Your task to perform on an android device: change keyboard looks Image 0: 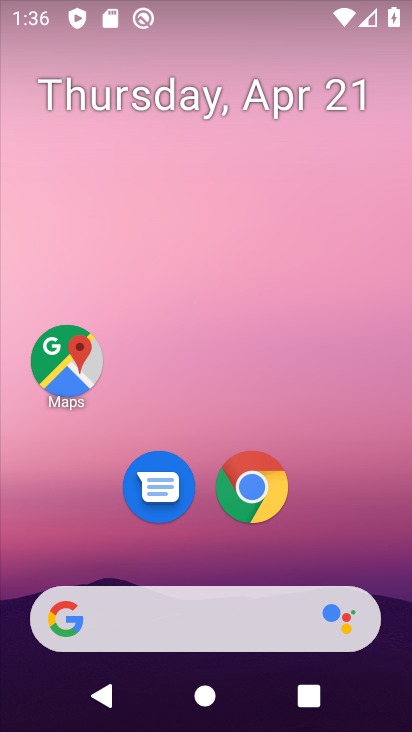
Step 0: drag from (213, 549) to (265, 359)
Your task to perform on an android device: change keyboard looks Image 1: 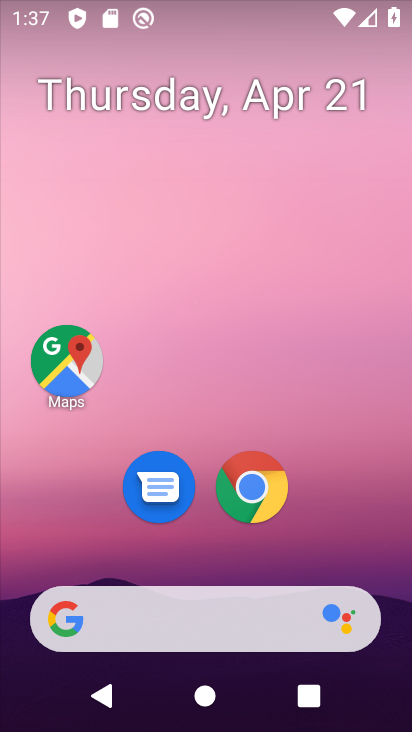
Step 1: drag from (215, 504) to (277, 151)
Your task to perform on an android device: change keyboard looks Image 2: 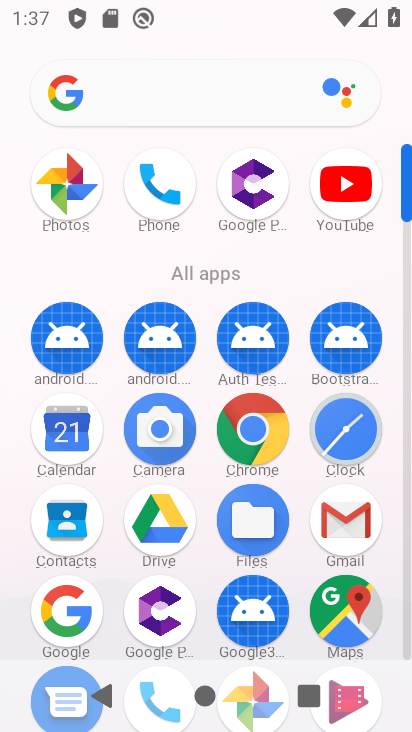
Step 2: drag from (241, 359) to (284, 54)
Your task to perform on an android device: change keyboard looks Image 3: 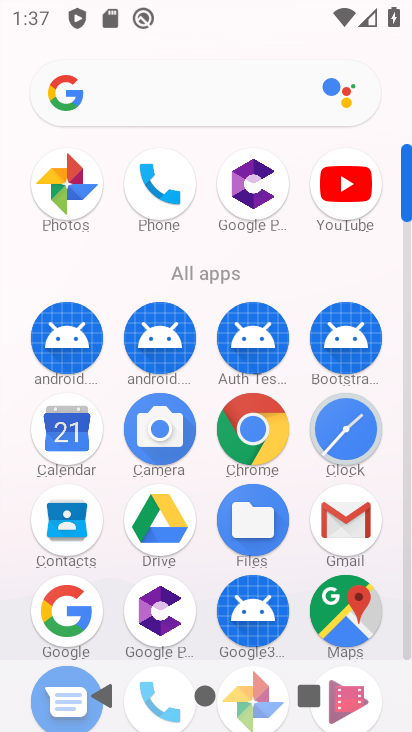
Step 3: drag from (207, 565) to (238, 141)
Your task to perform on an android device: change keyboard looks Image 4: 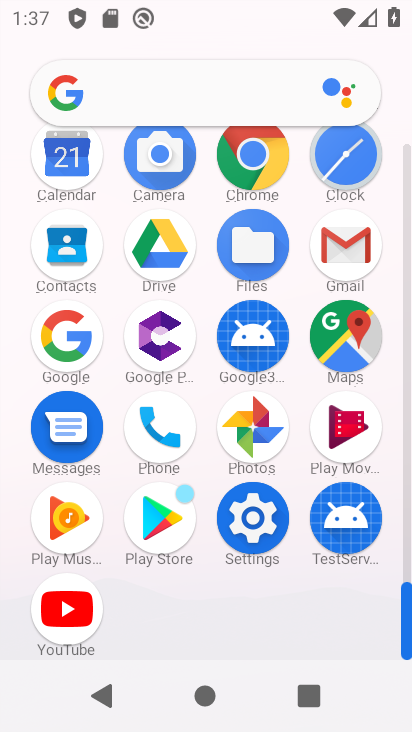
Step 4: click (254, 525)
Your task to perform on an android device: change keyboard looks Image 5: 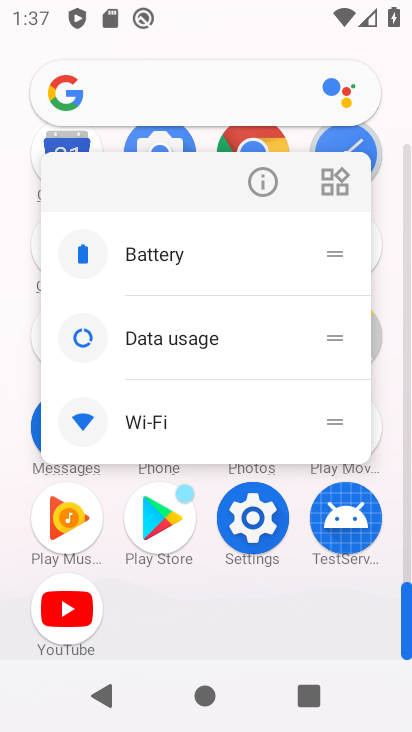
Step 5: click (259, 187)
Your task to perform on an android device: change keyboard looks Image 6: 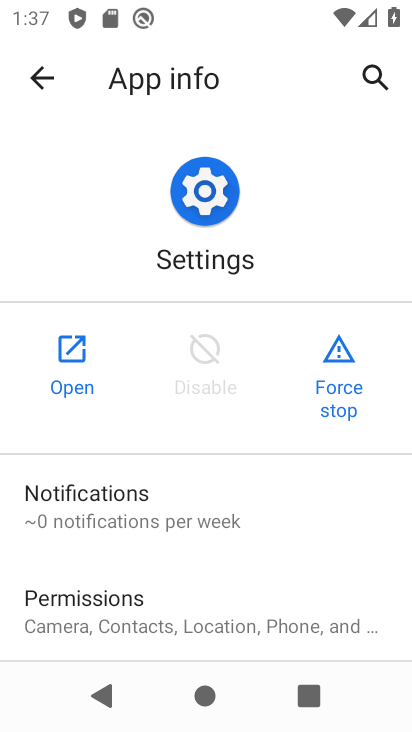
Step 6: click (61, 348)
Your task to perform on an android device: change keyboard looks Image 7: 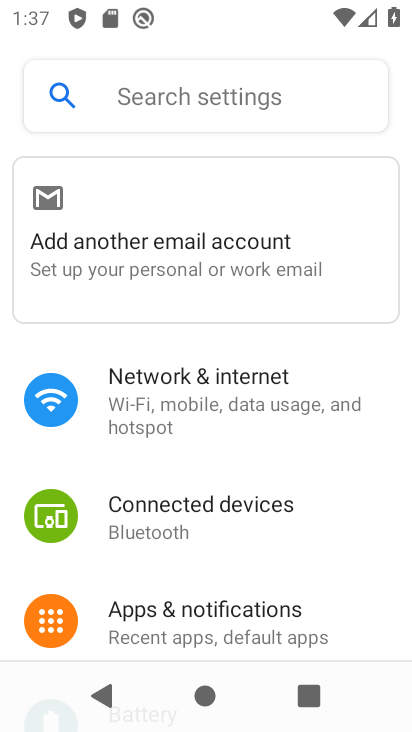
Step 7: drag from (205, 573) to (224, 309)
Your task to perform on an android device: change keyboard looks Image 8: 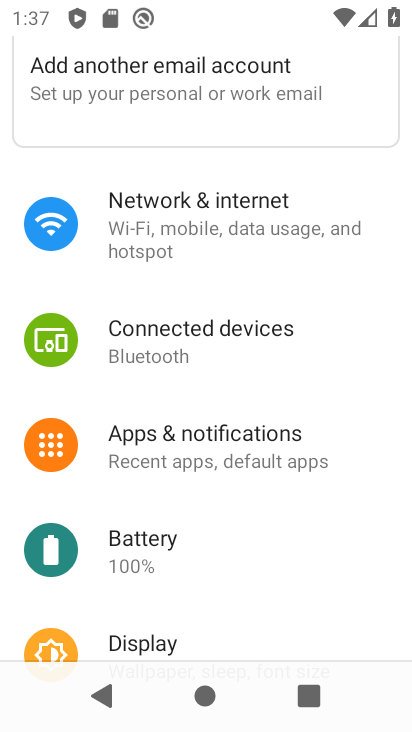
Step 8: drag from (202, 561) to (209, 364)
Your task to perform on an android device: change keyboard looks Image 9: 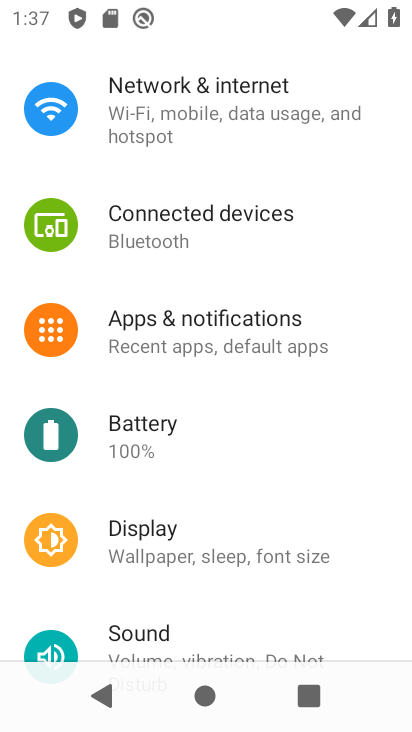
Step 9: drag from (184, 585) to (240, 62)
Your task to perform on an android device: change keyboard looks Image 10: 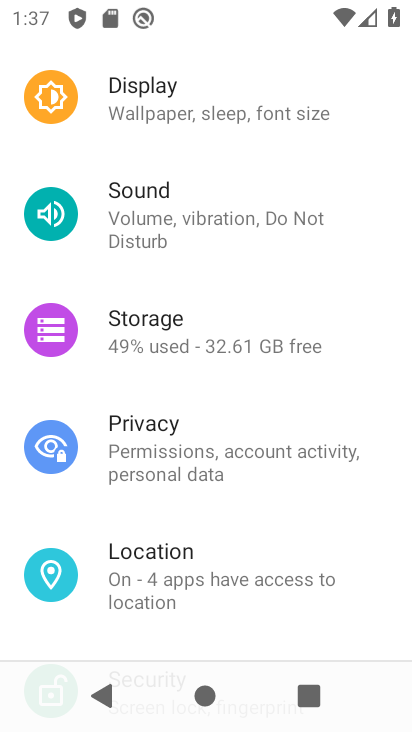
Step 10: drag from (224, 376) to (232, 75)
Your task to perform on an android device: change keyboard looks Image 11: 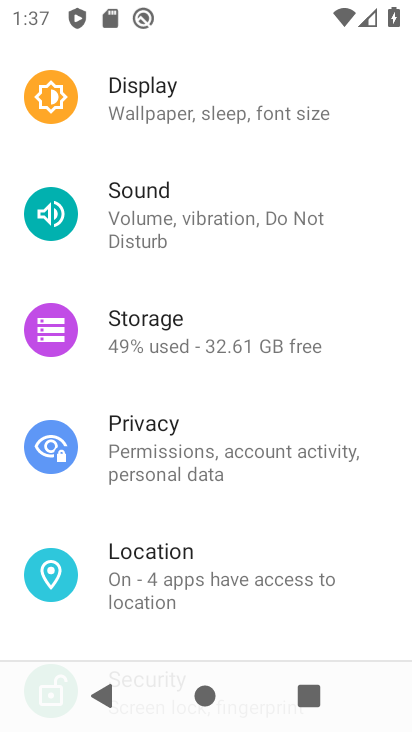
Step 11: drag from (212, 549) to (230, 284)
Your task to perform on an android device: change keyboard looks Image 12: 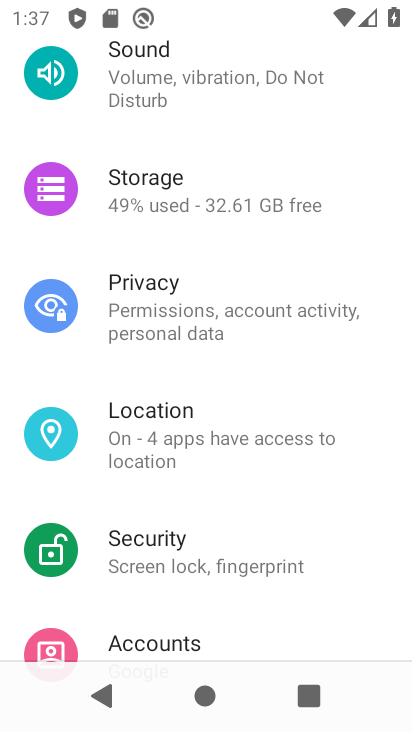
Step 12: drag from (255, 573) to (268, 241)
Your task to perform on an android device: change keyboard looks Image 13: 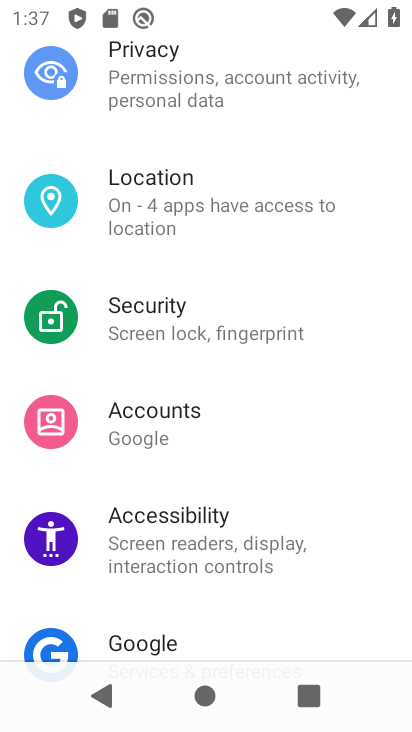
Step 13: drag from (194, 610) to (250, 59)
Your task to perform on an android device: change keyboard looks Image 14: 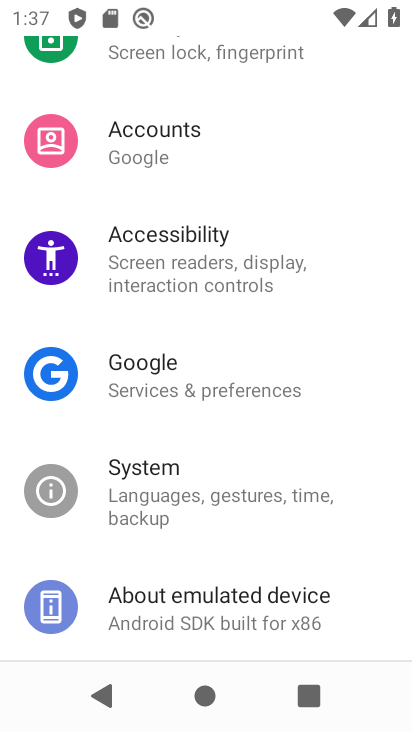
Step 14: click (184, 489)
Your task to perform on an android device: change keyboard looks Image 15: 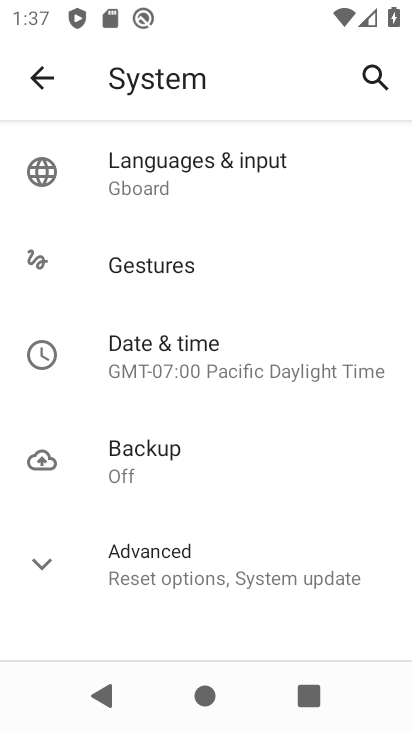
Step 15: click (199, 172)
Your task to perform on an android device: change keyboard looks Image 16: 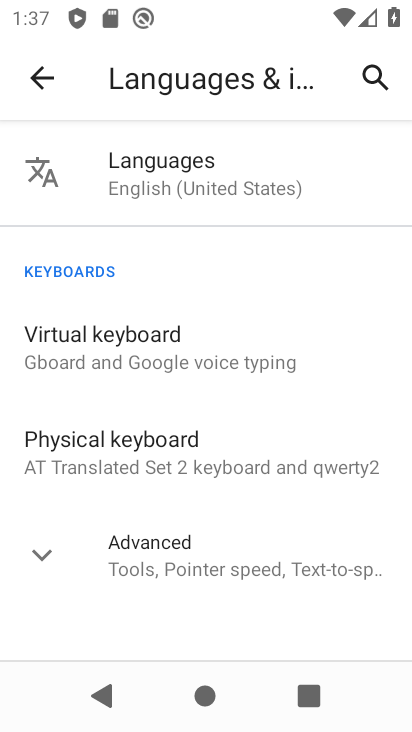
Step 16: click (157, 352)
Your task to perform on an android device: change keyboard looks Image 17: 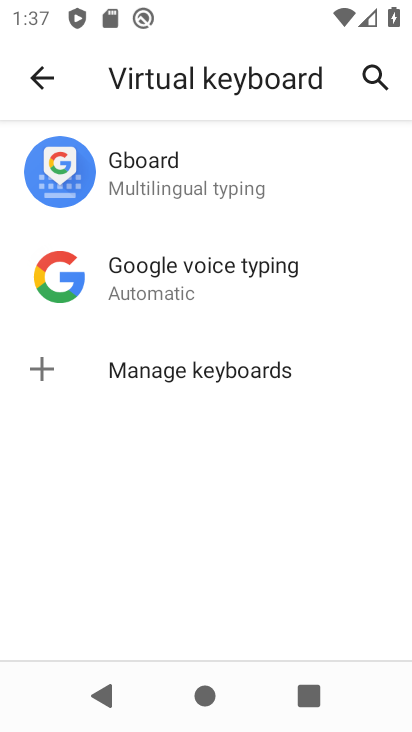
Step 17: click (174, 173)
Your task to perform on an android device: change keyboard looks Image 18: 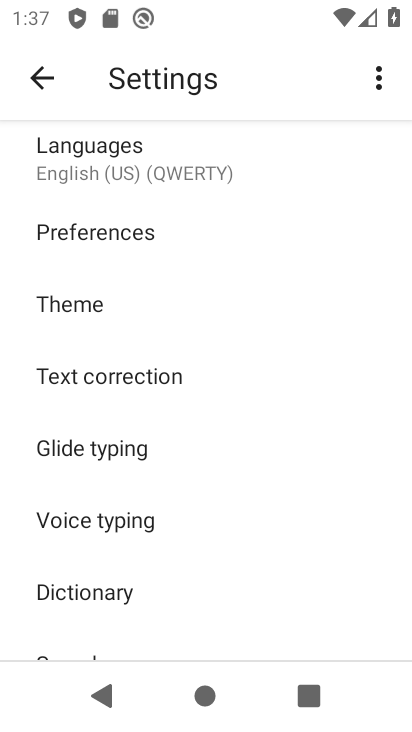
Step 18: click (101, 305)
Your task to perform on an android device: change keyboard looks Image 19: 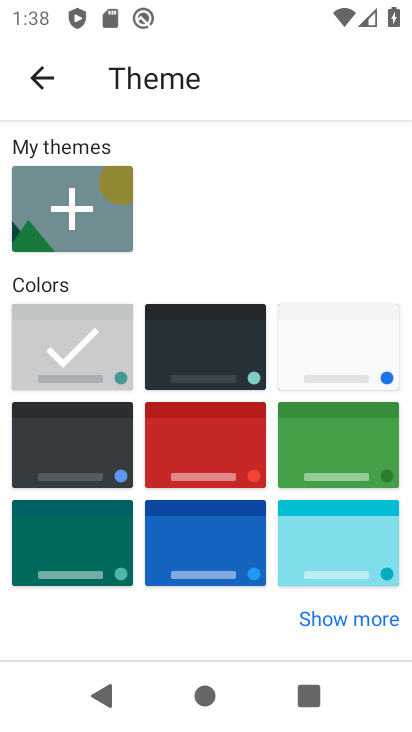
Step 19: click (194, 349)
Your task to perform on an android device: change keyboard looks Image 20: 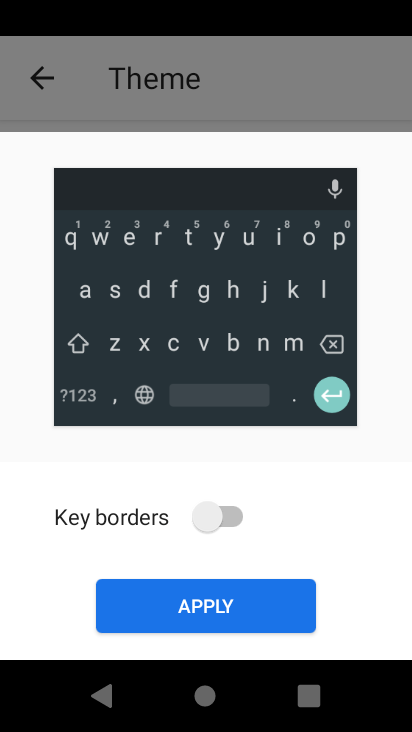
Step 20: click (196, 618)
Your task to perform on an android device: change keyboard looks Image 21: 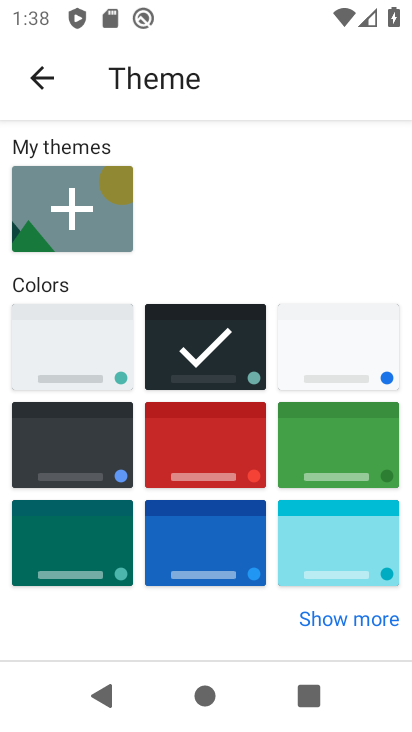
Step 21: task complete